Your task to perform on an android device: Go to network settings Image 0: 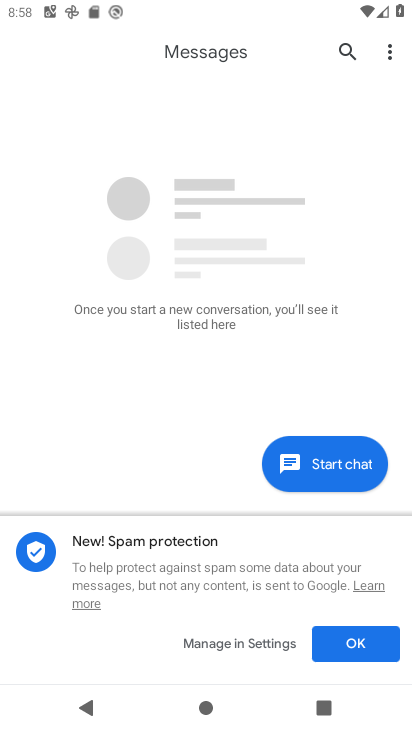
Step 0: press home button
Your task to perform on an android device: Go to network settings Image 1: 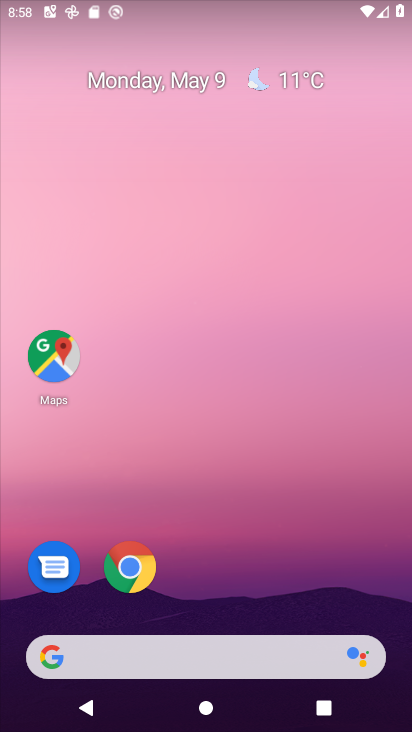
Step 1: drag from (200, 497) to (215, 65)
Your task to perform on an android device: Go to network settings Image 2: 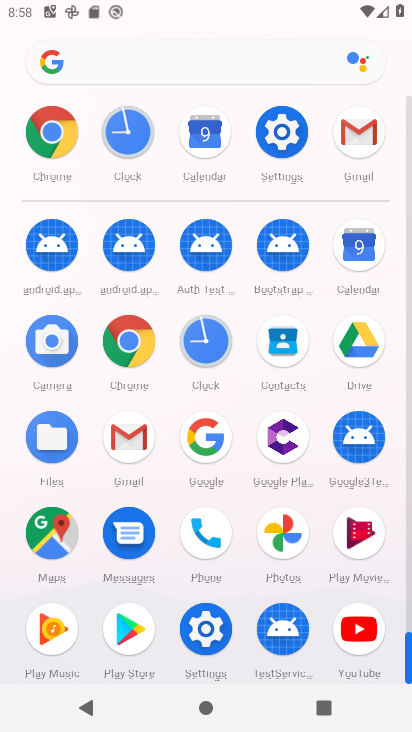
Step 2: click (273, 119)
Your task to perform on an android device: Go to network settings Image 3: 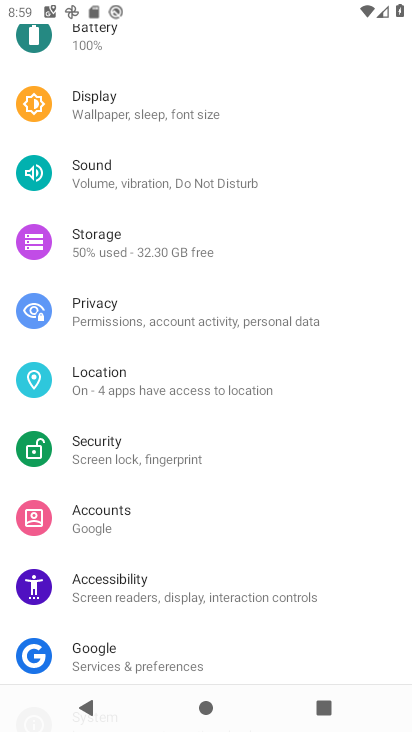
Step 3: drag from (196, 133) to (214, 478)
Your task to perform on an android device: Go to network settings Image 4: 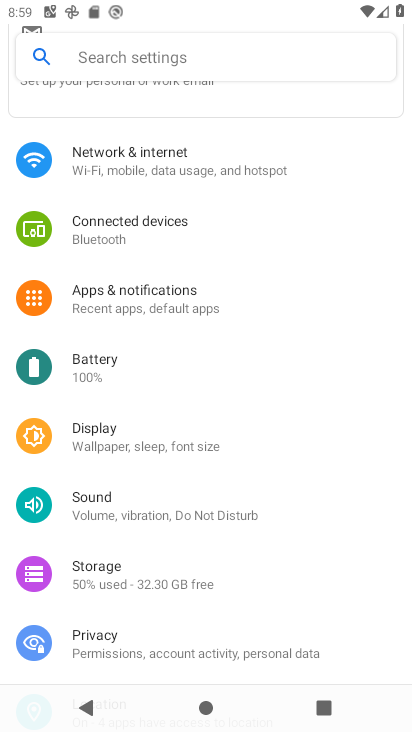
Step 4: click (224, 154)
Your task to perform on an android device: Go to network settings Image 5: 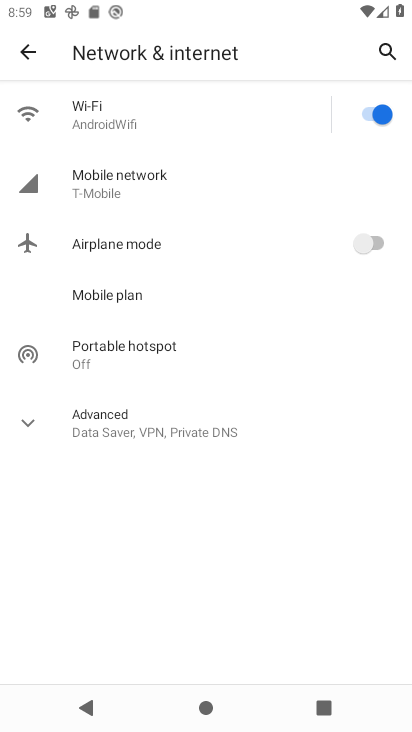
Step 5: task complete